Your task to perform on an android device: check battery use Image 0: 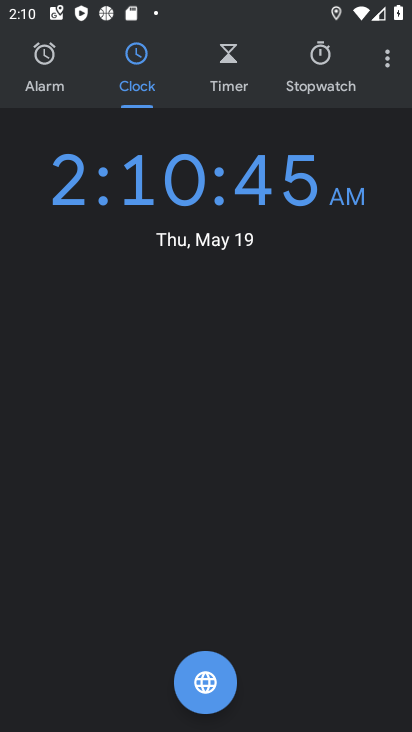
Step 0: press home button
Your task to perform on an android device: check battery use Image 1: 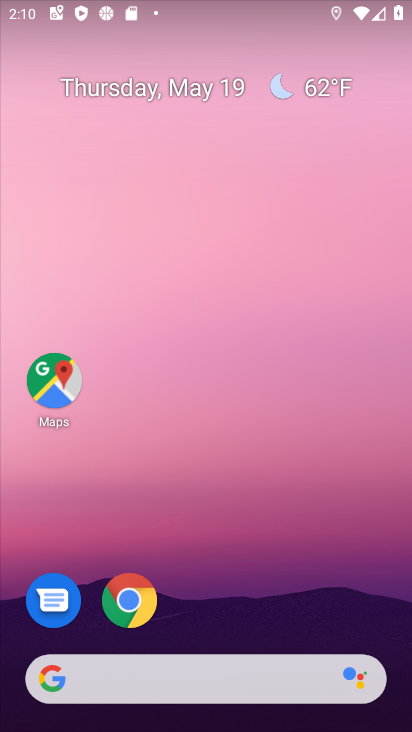
Step 1: drag from (26, 594) to (237, 121)
Your task to perform on an android device: check battery use Image 2: 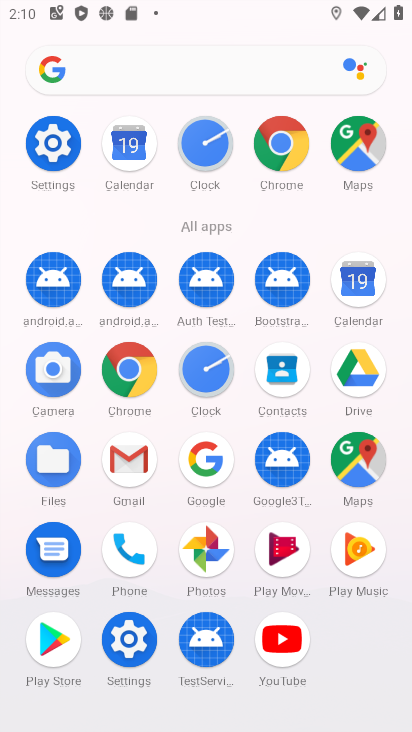
Step 2: click (29, 139)
Your task to perform on an android device: check battery use Image 3: 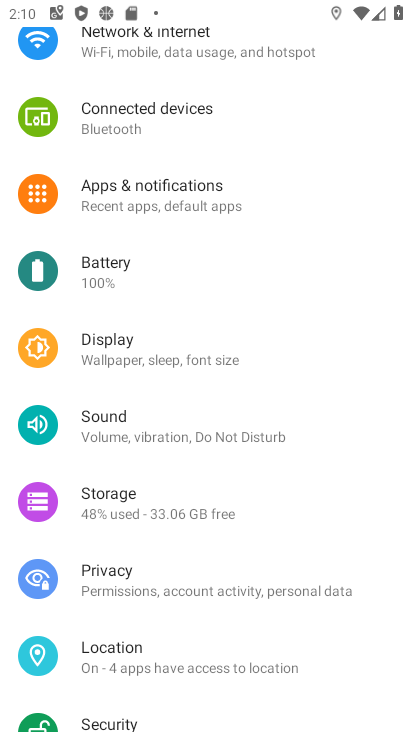
Step 3: click (94, 275)
Your task to perform on an android device: check battery use Image 4: 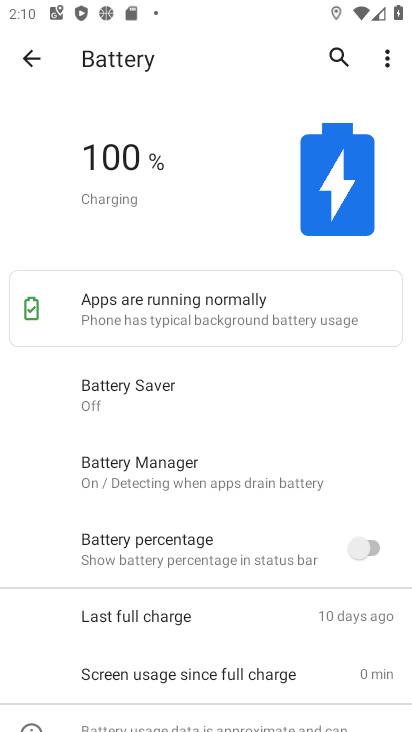
Step 4: task complete